Your task to perform on an android device: Open Chrome and go to settings Image 0: 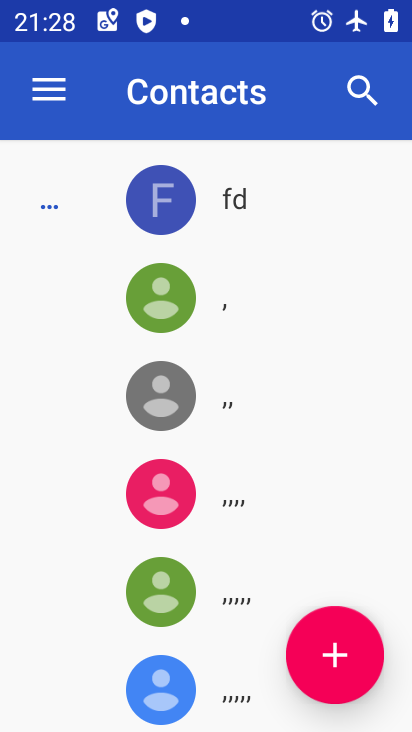
Step 0: press home button
Your task to perform on an android device: Open Chrome and go to settings Image 1: 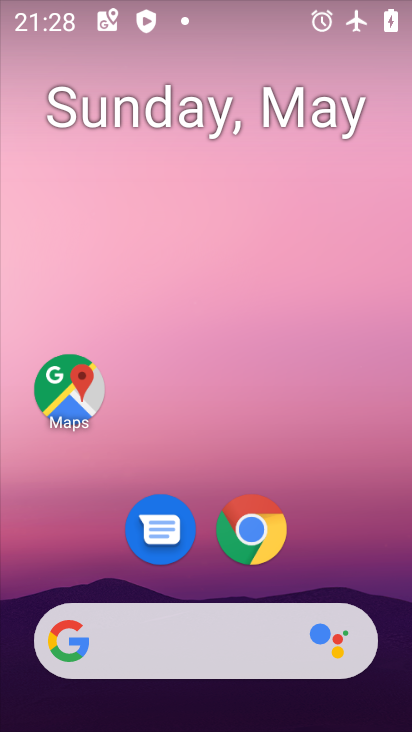
Step 1: click (253, 529)
Your task to perform on an android device: Open Chrome and go to settings Image 2: 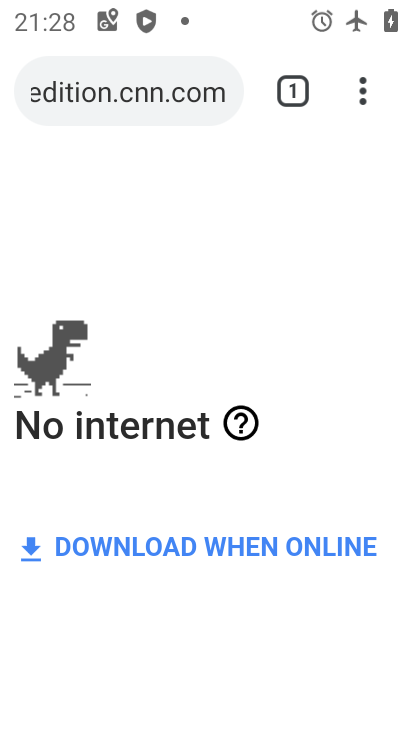
Step 2: click (362, 91)
Your task to perform on an android device: Open Chrome and go to settings Image 3: 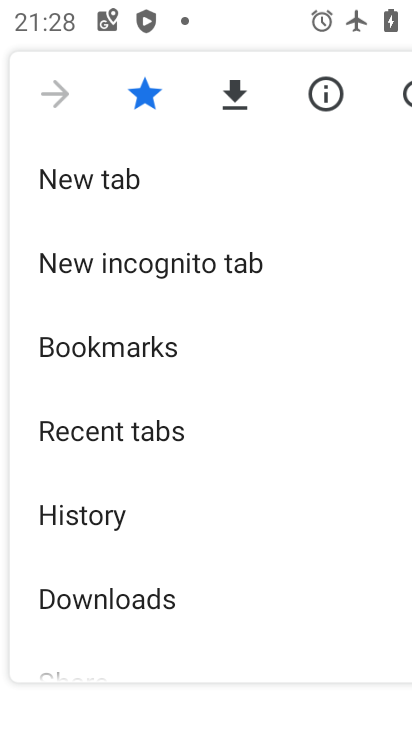
Step 3: drag from (169, 505) to (181, 208)
Your task to perform on an android device: Open Chrome and go to settings Image 4: 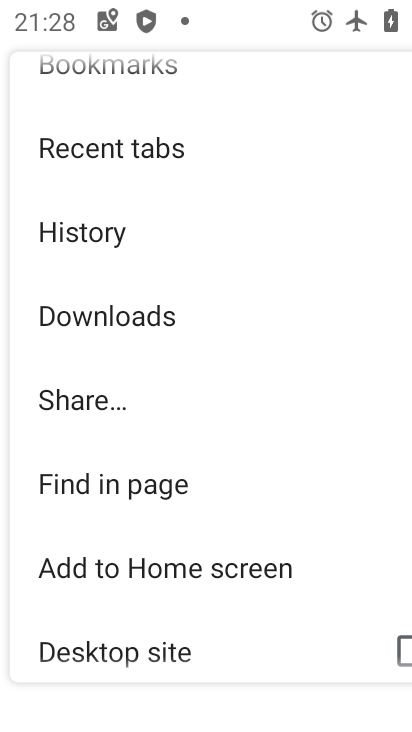
Step 4: drag from (95, 570) to (115, 180)
Your task to perform on an android device: Open Chrome and go to settings Image 5: 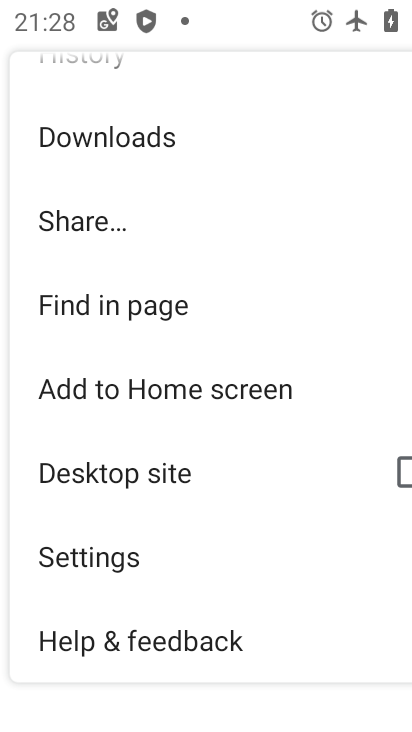
Step 5: click (81, 565)
Your task to perform on an android device: Open Chrome and go to settings Image 6: 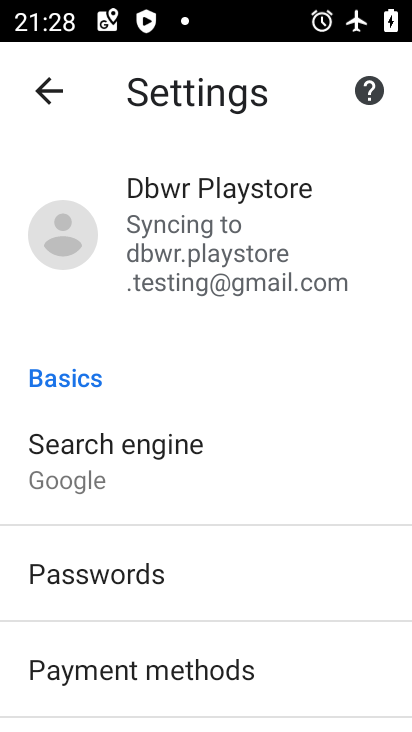
Step 6: task complete